Your task to perform on an android device: Show me the alarms in the clock app Image 0: 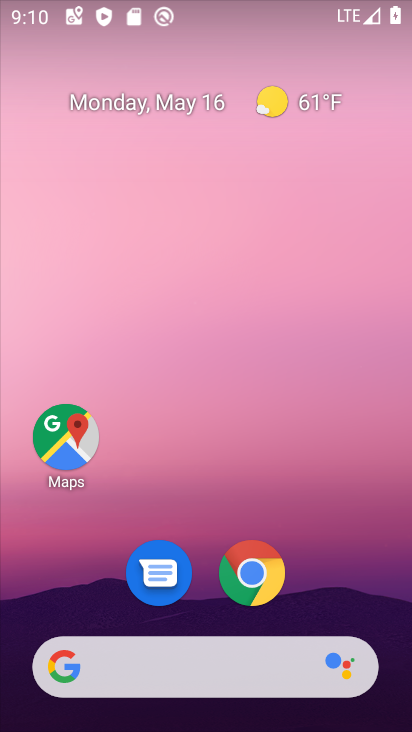
Step 0: drag from (193, 719) to (196, 159)
Your task to perform on an android device: Show me the alarms in the clock app Image 1: 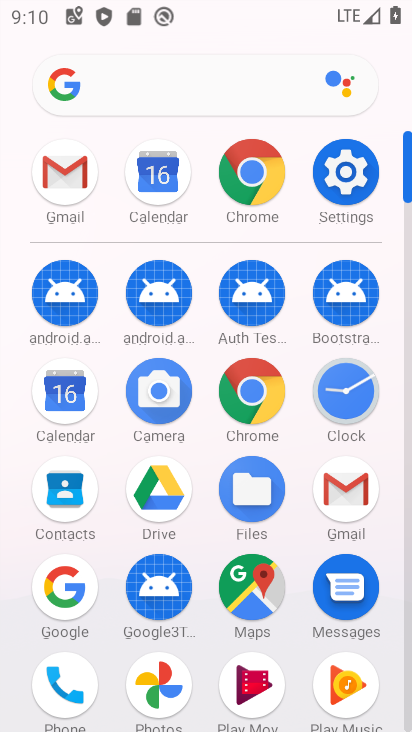
Step 1: click (340, 386)
Your task to perform on an android device: Show me the alarms in the clock app Image 2: 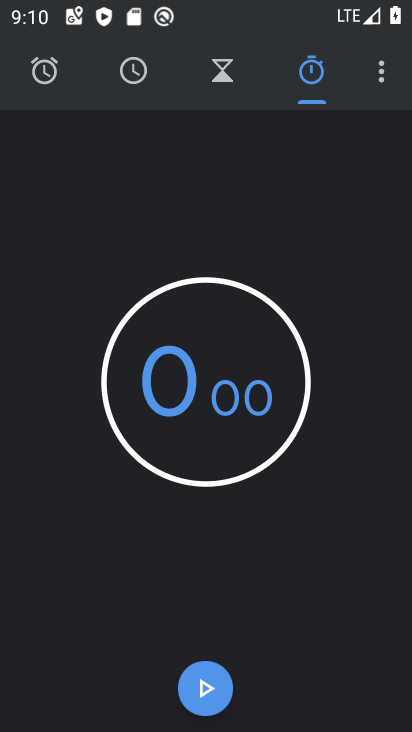
Step 2: click (47, 67)
Your task to perform on an android device: Show me the alarms in the clock app Image 3: 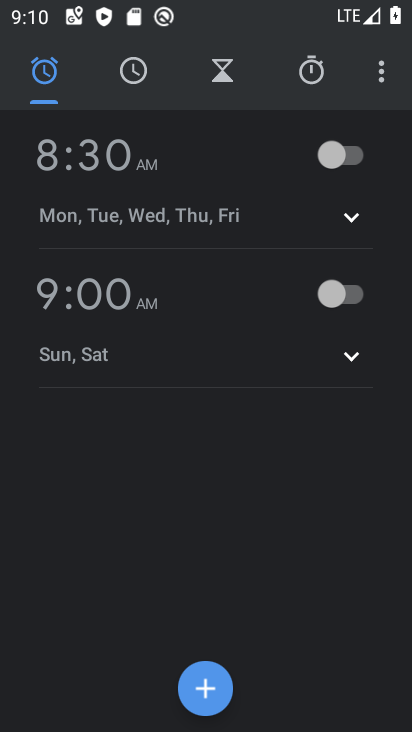
Step 3: task complete